Your task to perform on an android device: choose inbox layout in the gmail app Image 0: 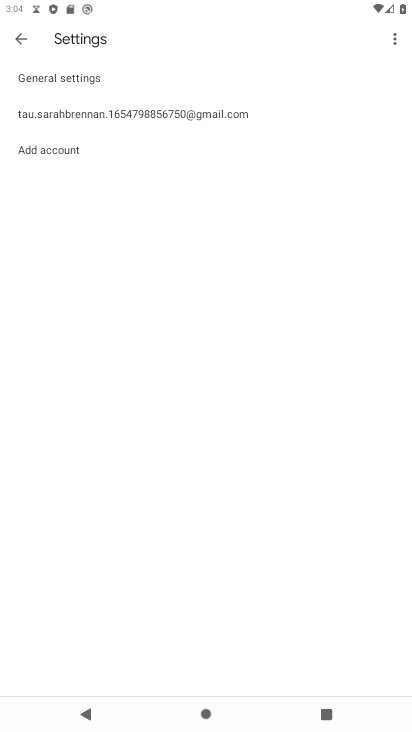
Step 0: click (74, 111)
Your task to perform on an android device: choose inbox layout in the gmail app Image 1: 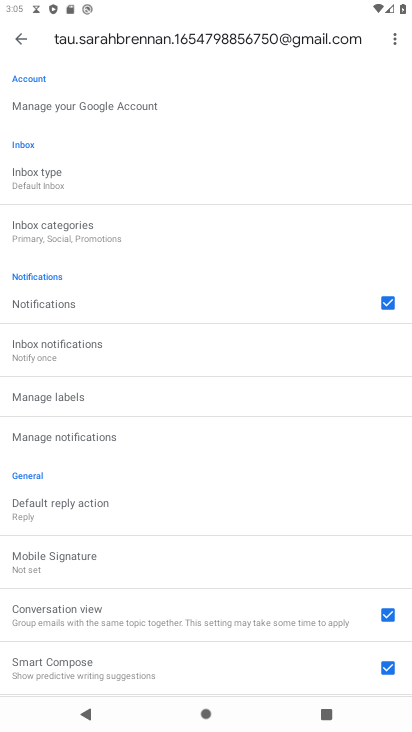
Step 1: click (35, 174)
Your task to perform on an android device: choose inbox layout in the gmail app Image 2: 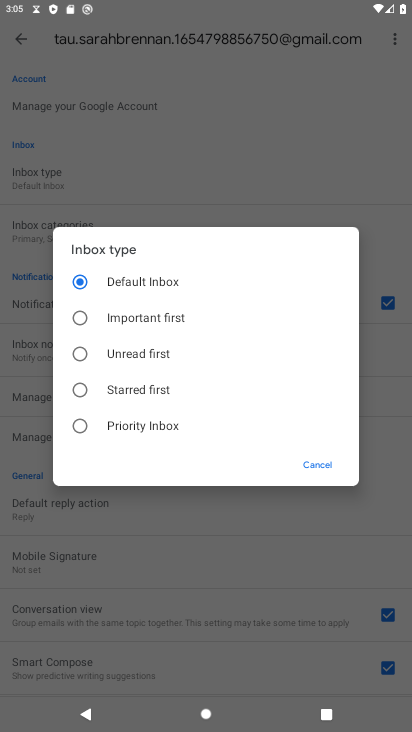
Step 2: click (97, 428)
Your task to perform on an android device: choose inbox layout in the gmail app Image 3: 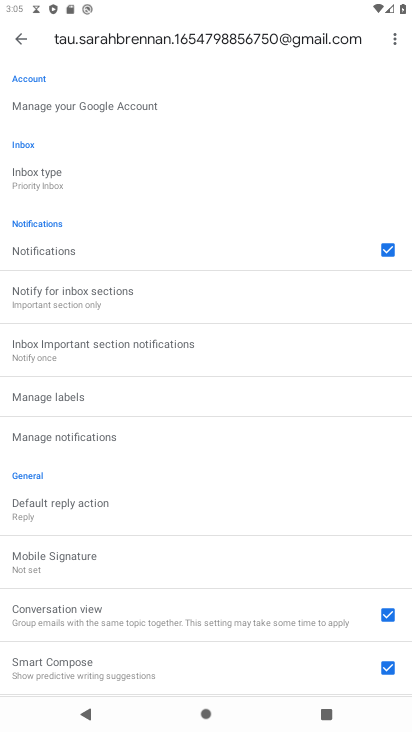
Step 3: task complete